Your task to perform on an android device: turn on priority inbox in the gmail app Image 0: 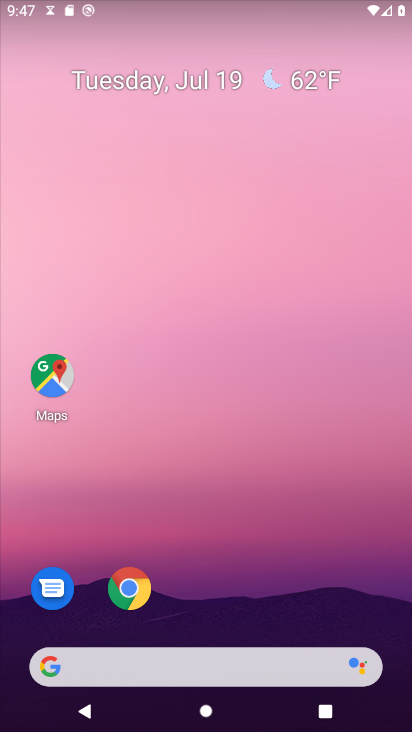
Step 0: drag from (194, 604) to (265, 32)
Your task to perform on an android device: turn on priority inbox in the gmail app Image 1: 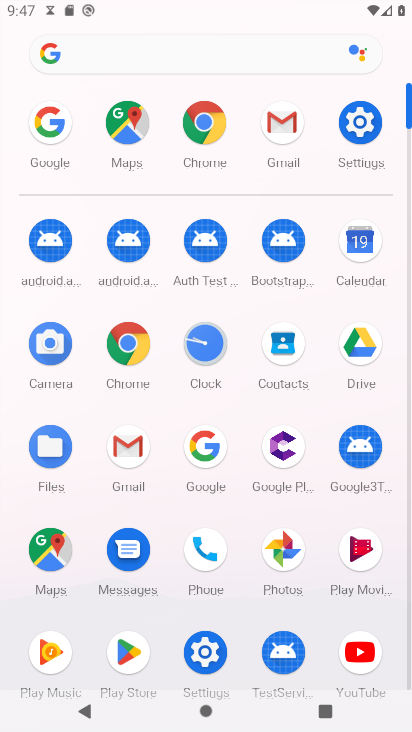
Step 1: click (267, 130)
Your task to perform on an android device: turn on priority inbox in the gmail app Image 2: 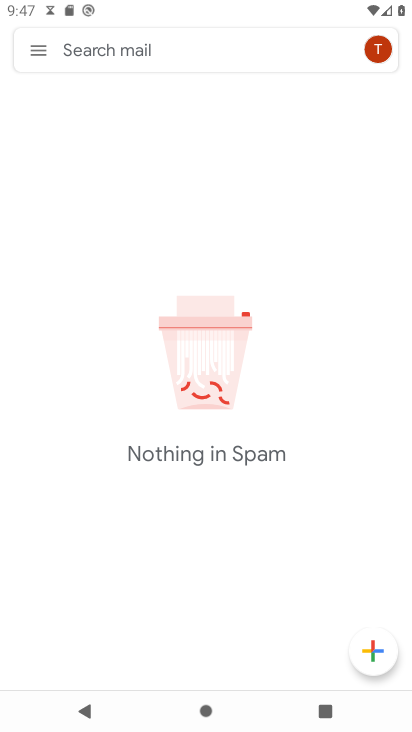
Step 2: click (37, 52)
Your task to perform on an android device: turn on priority inbox in the gmail app Image 3: 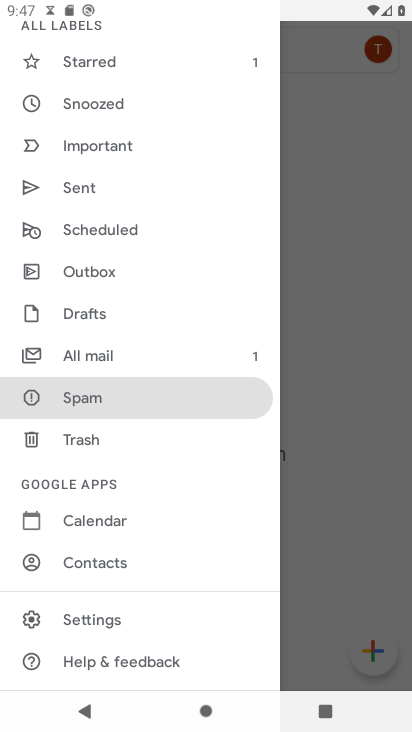
Step 3: click (104, 632)
Your task to perform on an android device: turn on priority inbox in the gmail app Image 4: 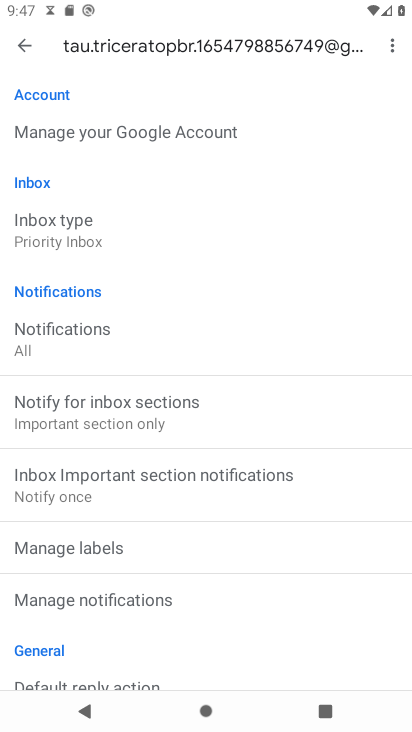
Step 4: click (29, 239)
Your task to perform on an android device: turn on priority inbox in the gmail app Image 5: 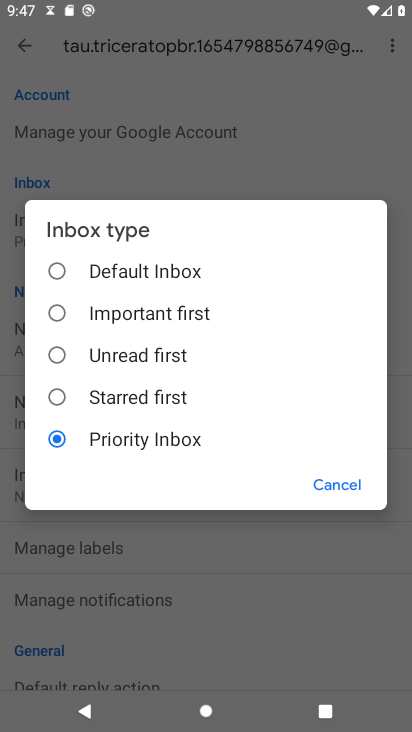
Step 5: task complete